Your task to perform on an android device: toggle improve location accuracy Image 0: 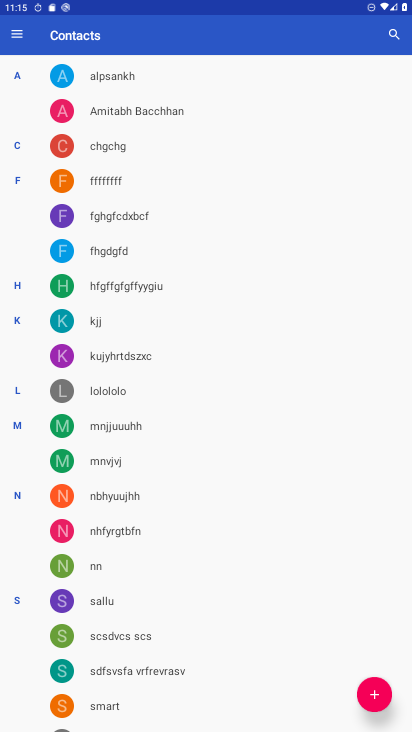
Step 0: press home button
Your task to perform on an android device: toggle improve location accuracy Image 1: 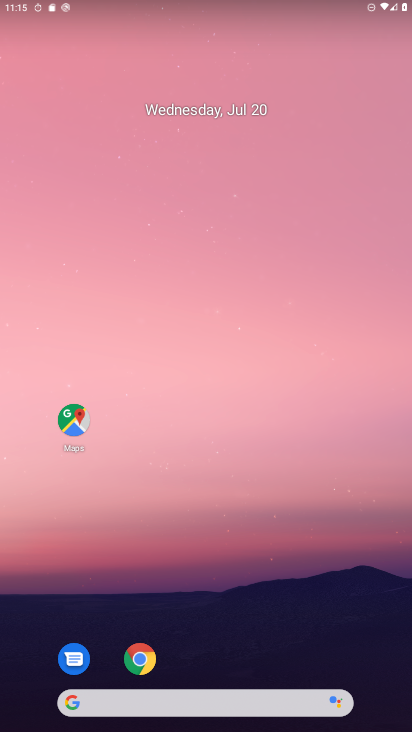
Step 1: drag from (271, 622) to (270, 124)
Your task to perform on an android device: toggle improve location accuracy Image 2: 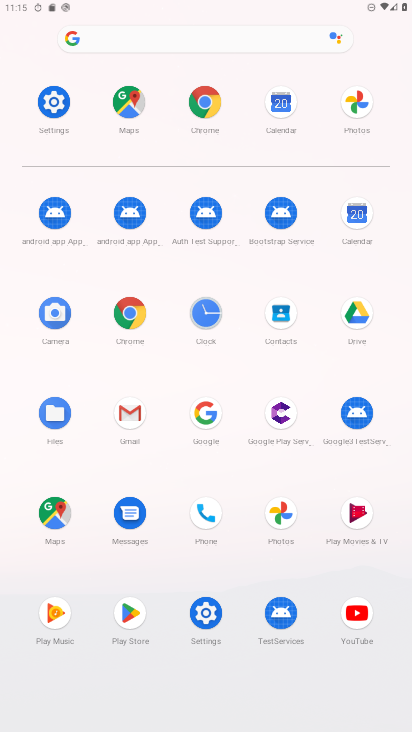
Step 2: click (54, 102)
Your task to perform on an android device: toggle improve location accuracy Image 3: 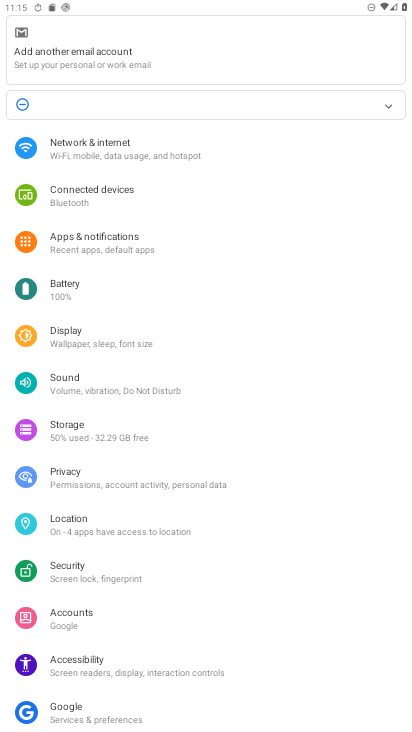
Step 3: click (105, 527)
Your task to perform on an android device: toggle improve location accuracy Image 4: 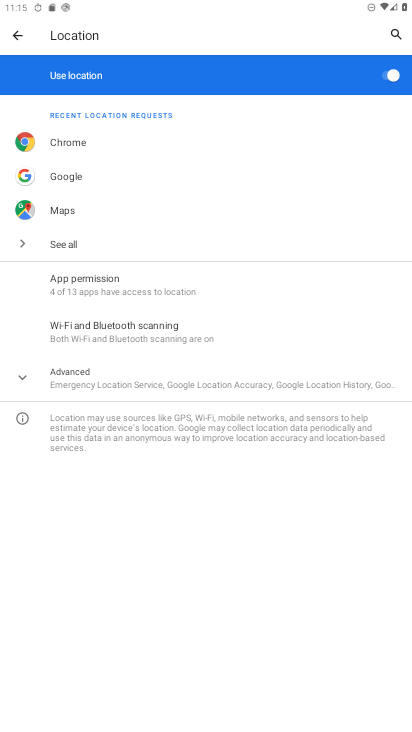
Step 4: click (75, 366)
Your task to perform on an android device: toggle improve location accuracy Image 5: 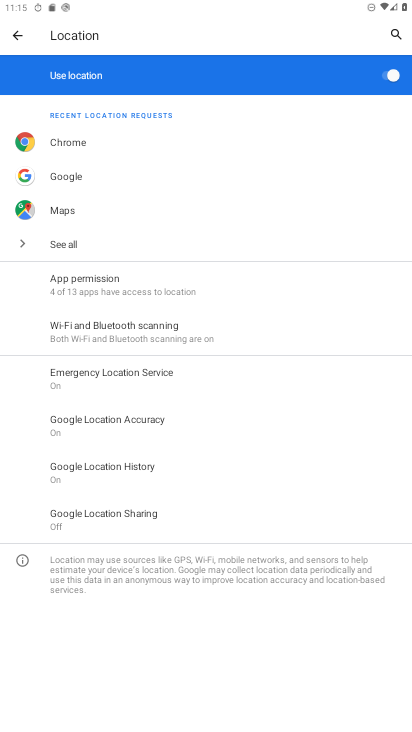
Step 5: click (137, 412)
Your task to perform on an android device: toggle improve location accuracy Image 6: 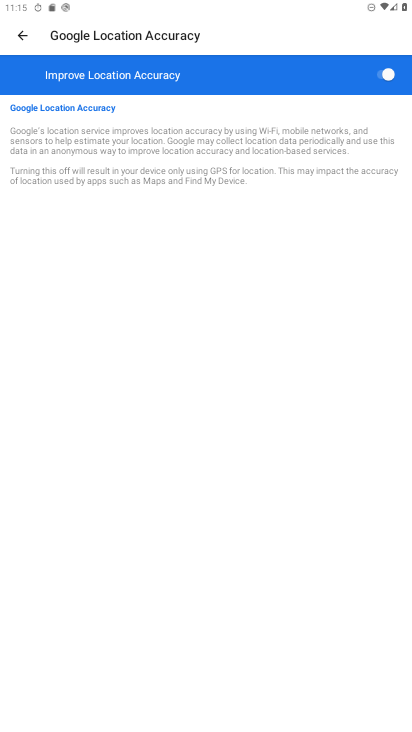
Step 6: click (391, 76)
Your task to perform on an android device: toggle improve location accuracy Image 7: 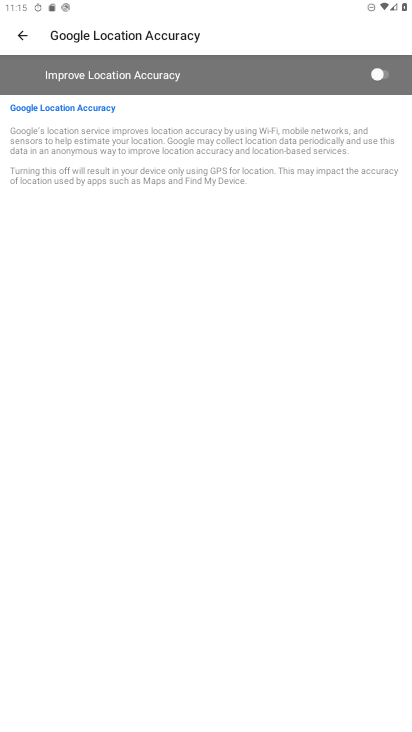
Step 7: task complete